Your task to perform on an android device: turn on location history Image 0: 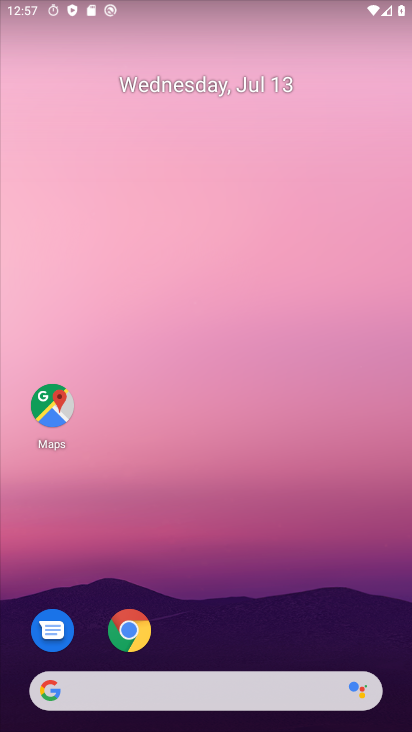
Step 0: drag from (334, 590) to (319, 82)
Your task to perform on an android device: turn on location history Image 1: 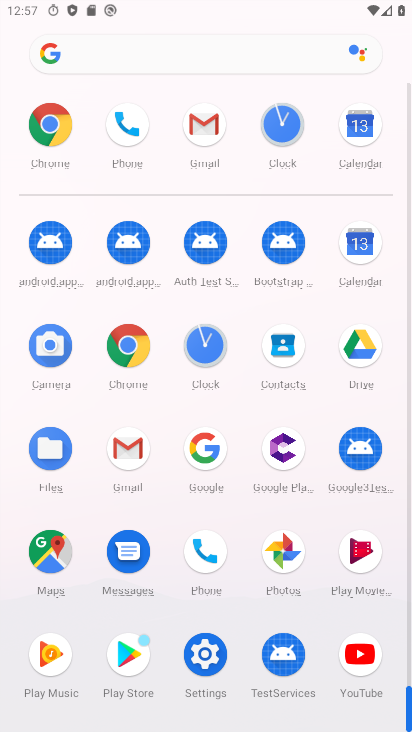
Step 1: click (212, 655)
Your task to perform on an android device: turn on location history Image 2: 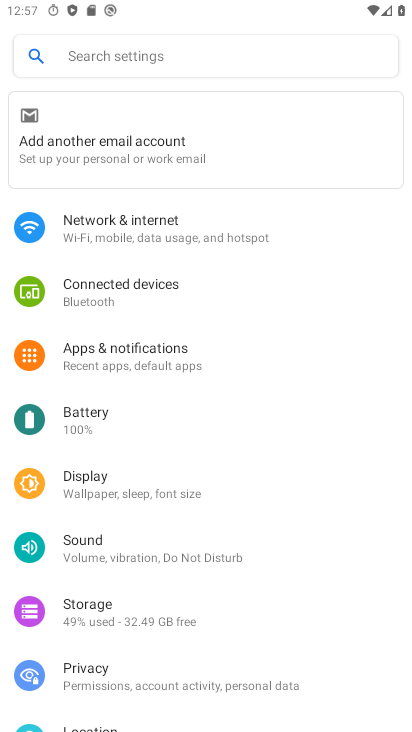
Step 2: drag from (160, 532) to (172, 207)
Your task to perform on an android device: turn on location history Image 3: 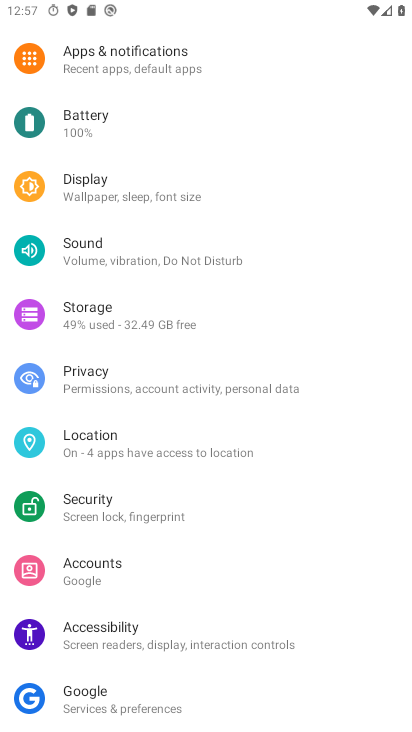
Step 3: click (125, 438)
Your task to perform on an android device: turn on location history Image 4: 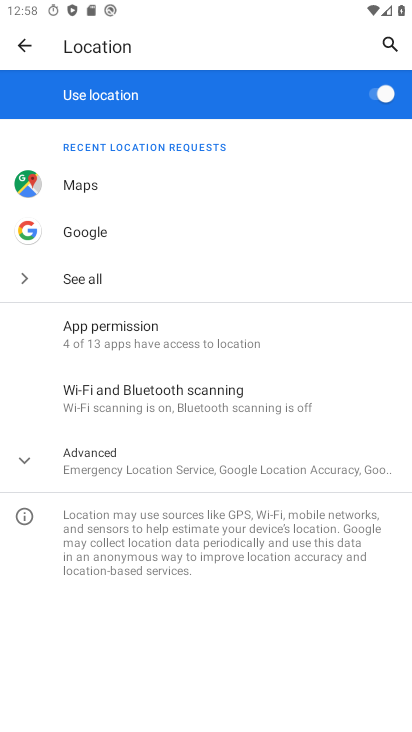
Step 4: click (122, 470)
Your task to perform on an android device: turn on location history Image 5: 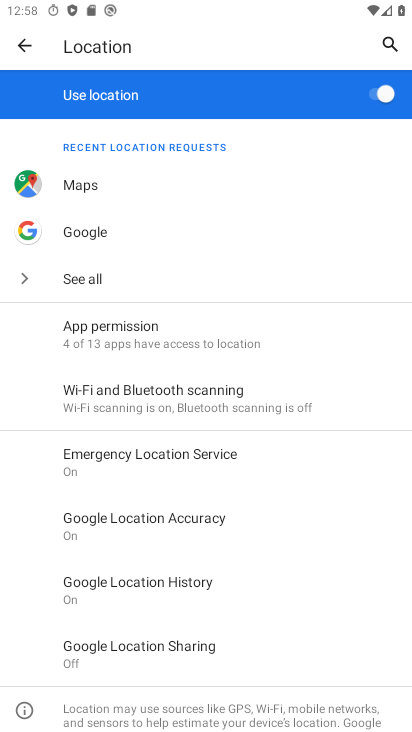
Step 5: click (125, 582)
Your task to perform on an android device: turn on location history Image 6: 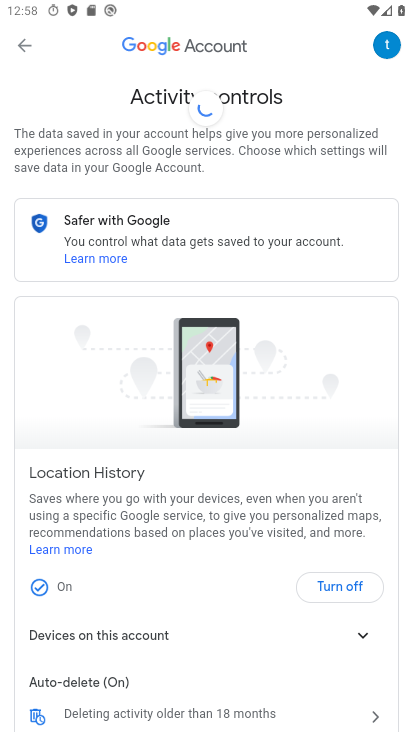
Step 6: task complete